Your task to perform on an android device: add a contact Image 0: 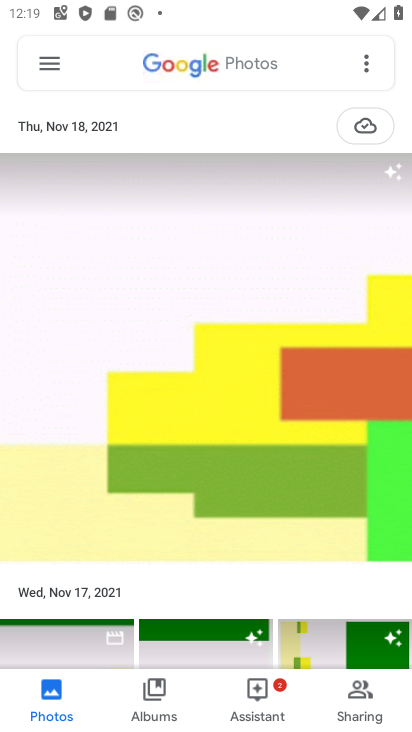
Step 0: press home button
Your task to perform on an android device: add a contact Image 1: 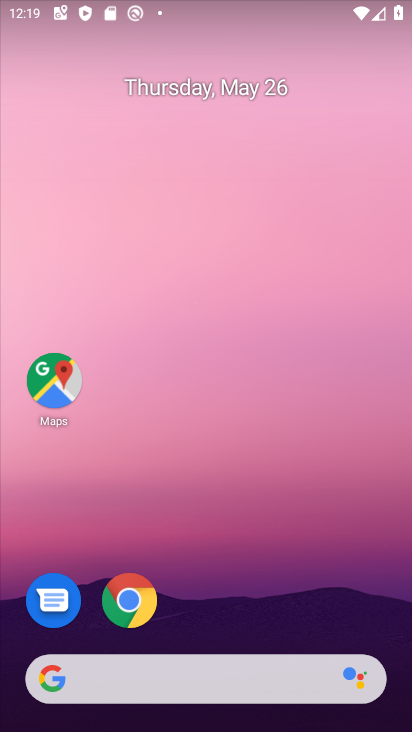
Step 1: drag from (249, 509) to (306, 115)
Your task to perform on an android device: add a contact Image 2: 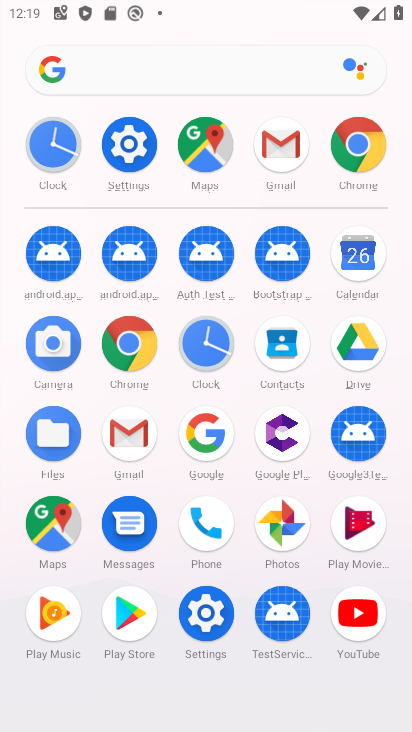
Step 2: click (274, 343)
Your task to perform on an android device: add a contact Image 3: 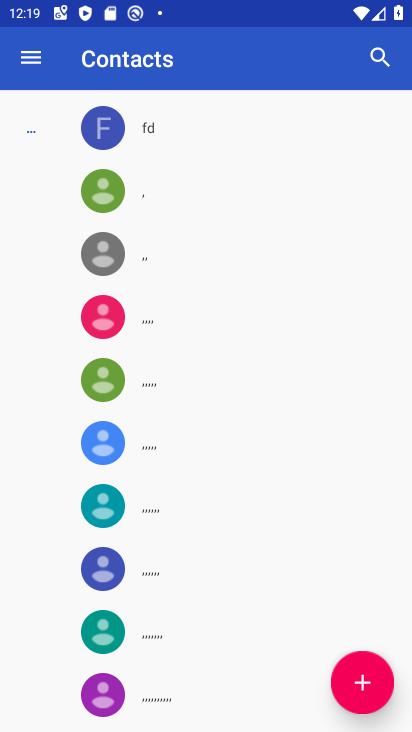
Step 3: click (359, 688)
Your task to perform on an android device: add a contact Image 4: 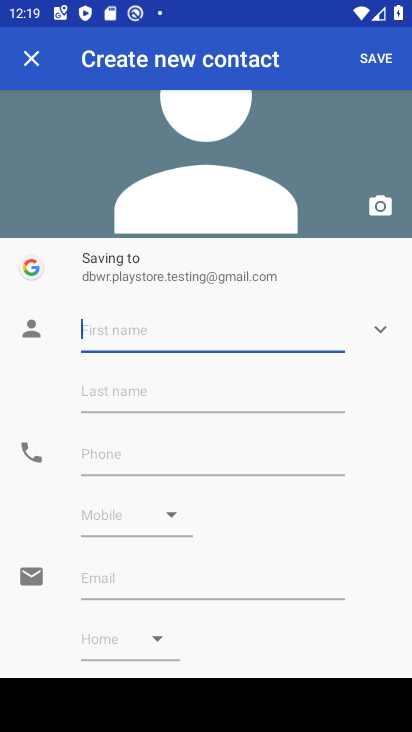
Step 4: type ""
Your task to perform on an android device: add a contact Image 5: 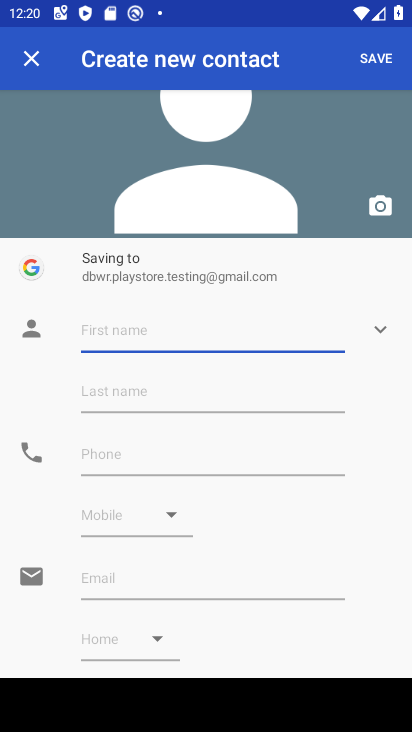
Step 5: type "achutanand"
Your task to perform on an android device: add a contact Image 6: 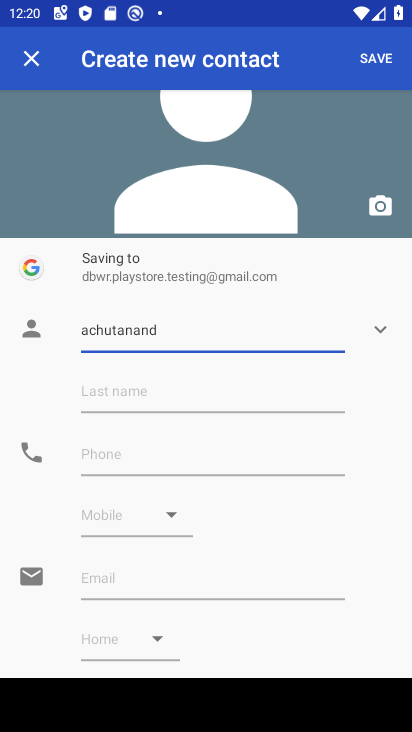
Step 6: click (384, 48)
Your task to perform on an android device: add a contact Image 7: 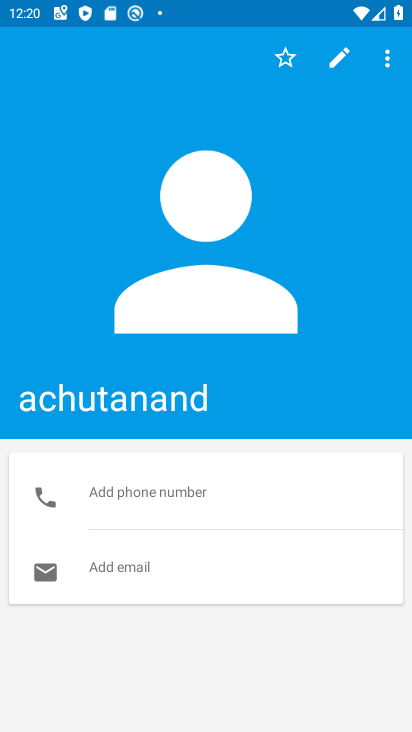
Step 7: task complete